Your task to perform on an android device: Open ESPN.com Image 0: 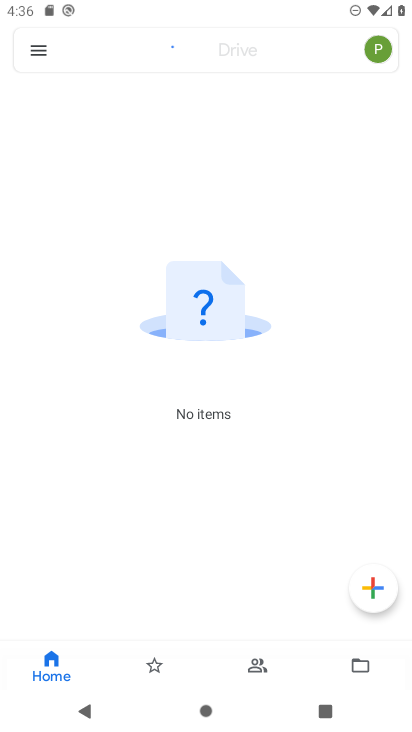
Step 0: press home button
Your task to perform on an android device: Open ESPN.com Image 1: 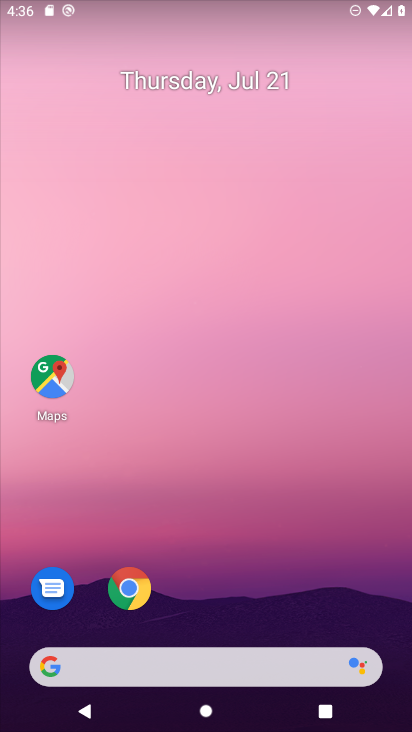
Step 1: drag from (270, 629) to (241, 4)
Your task to perform on an android device: Open ESPN.com Image 2: 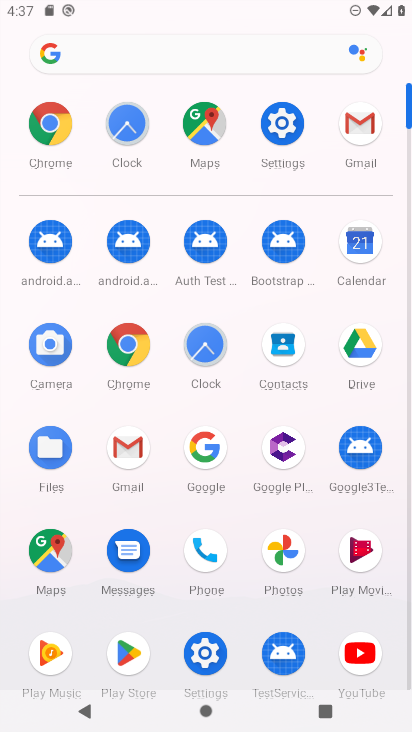
Step 2: click (135, 367)
Your task to perform on an android device: Open ESPN.com Image 3: 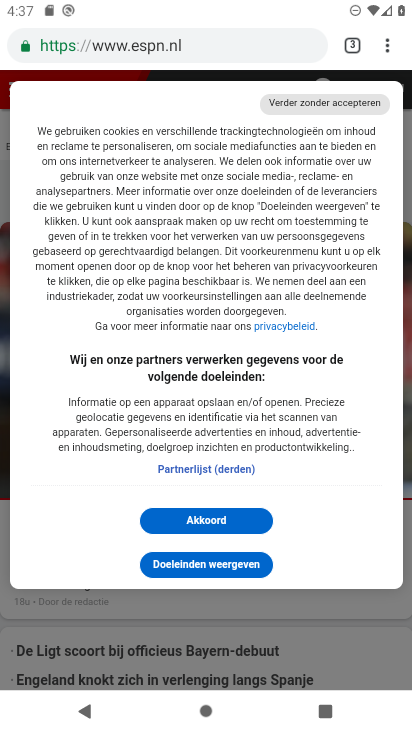
Step 3: click (260, 44)
Your task to perform on an android device: Open ESPN.com Image 4: 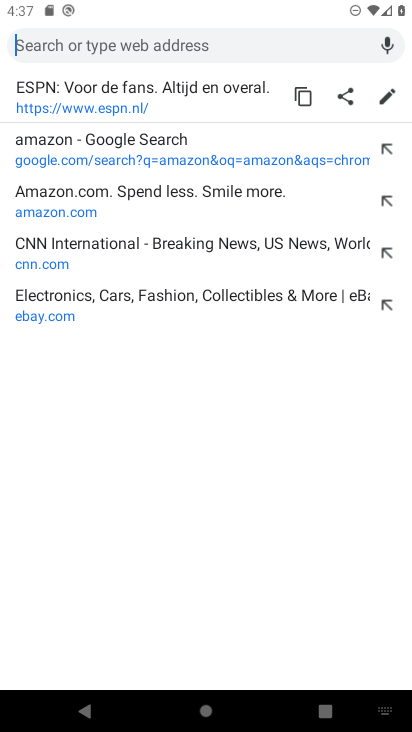
Step 4: type "espn"
Your task to perform on an android device: Open ESPN.com Image 5: 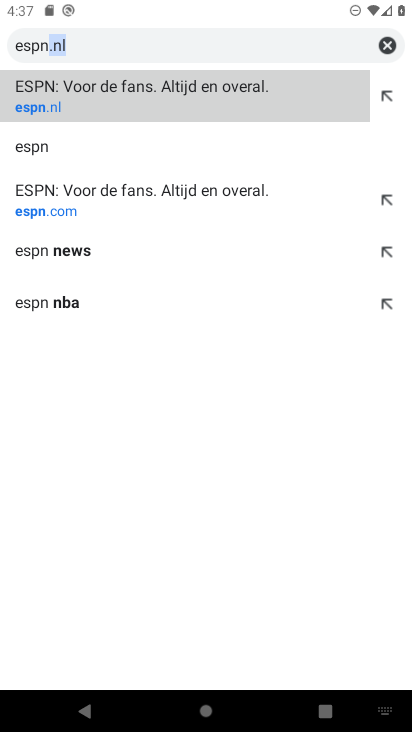
Step 5: click (226, 199)
Your task to perform on an android device: Open ESPN.com Image 6: 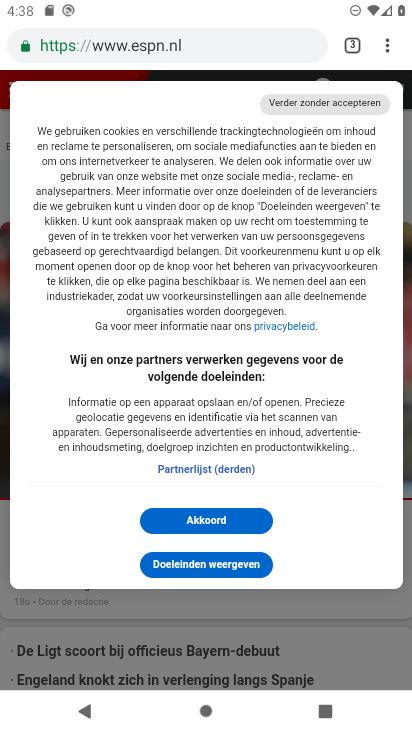
Step 6: task complete